Your task to perform on an android device: open app "Pinterest" (install if not already installed) and go to login screen Image 0: 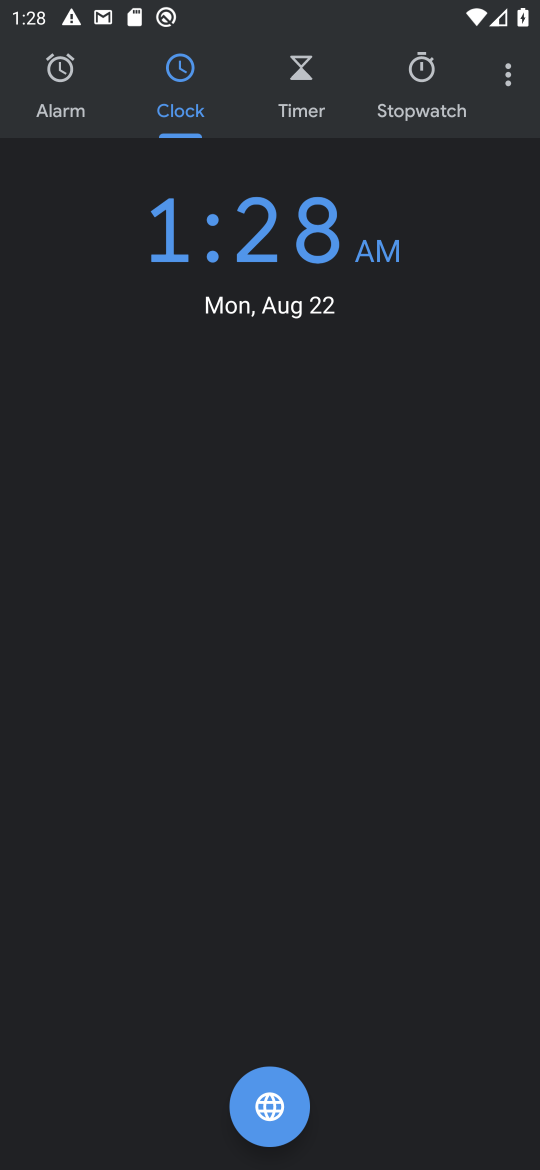
Step 0: press home button
Your task to perform on an android device: open app "Pinterest" (install if not already installed) and go to login screen Image 1: 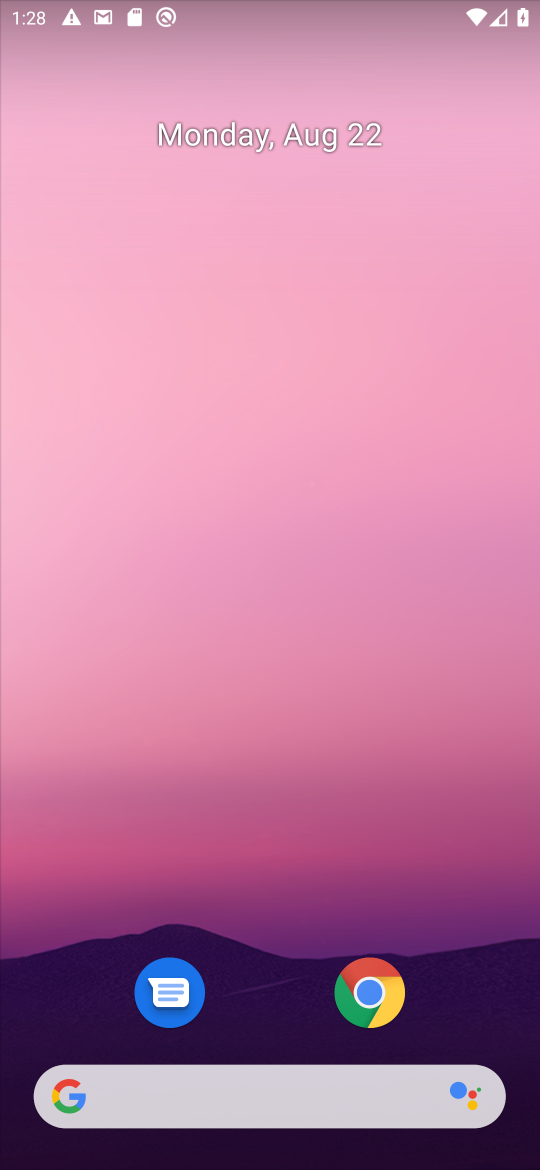
Step 1: drag from (201, 1077) to (231, 215)
Your task to perform on an android device: open app "Pinterest" (install if not already installed) and go to login screen Image 2: 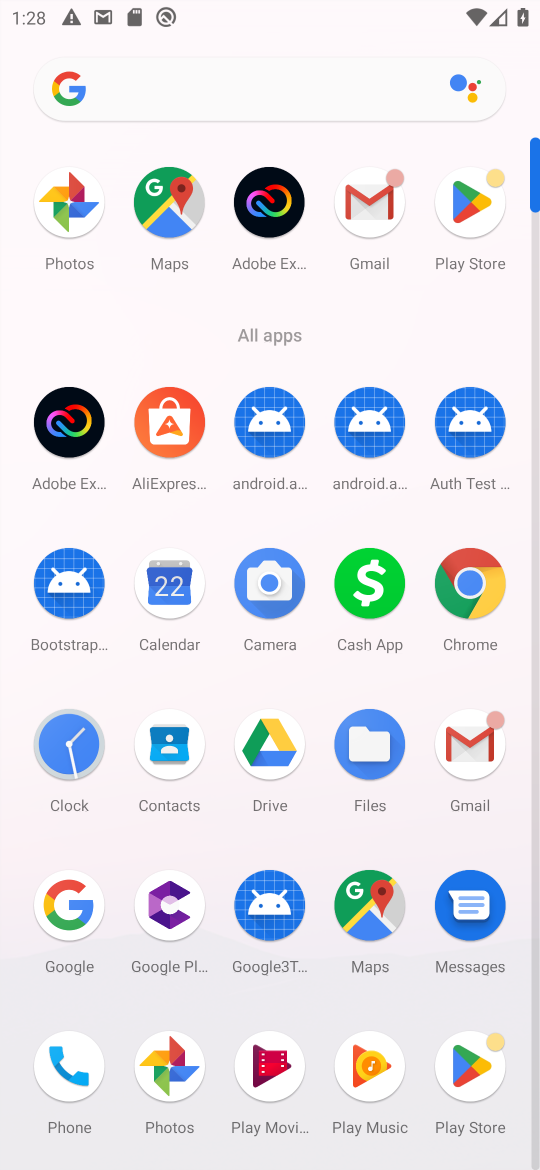
Step 2: click (464, 214)
Your task to perform on an android device: open app "Pinterest" (install if not already installed) and go to login screen Image 3: 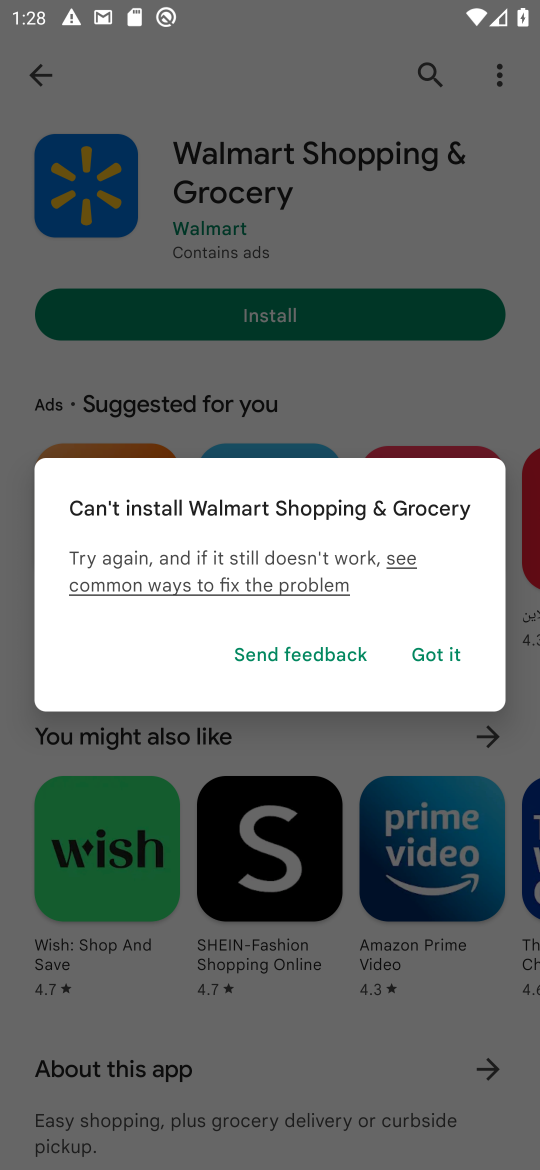
Step 3: click (429, 662)
Your task to perform on an android device: open app "Pinterest" (install if not already installed) and go to login screen Image 4: 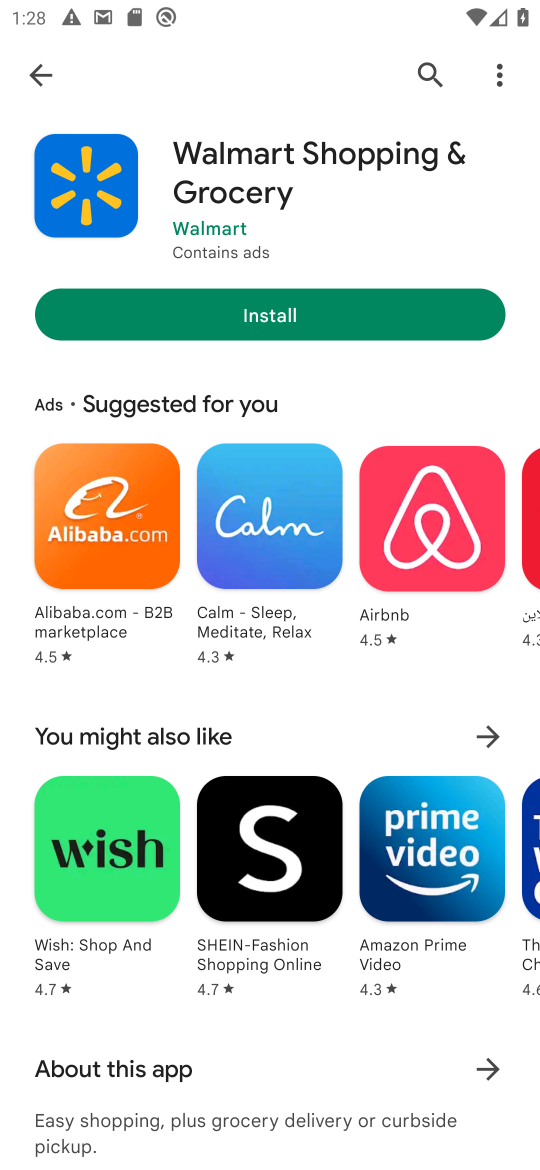
Step 4: click (416, 69)
Your task to perform on an android device: open app "Pinterest" (install if not already installed) and go to login screen Image 5: 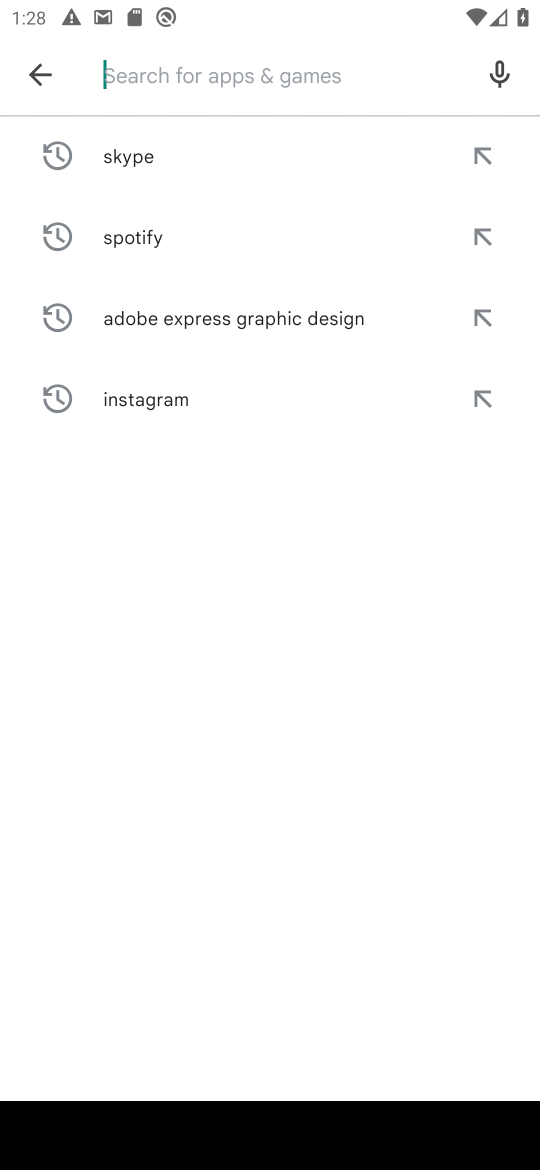
Step 5: type "Pinterest"
Your task to perform on an android device: open app "Pinterest" (install if not already installed) and go to login screen Image 6: 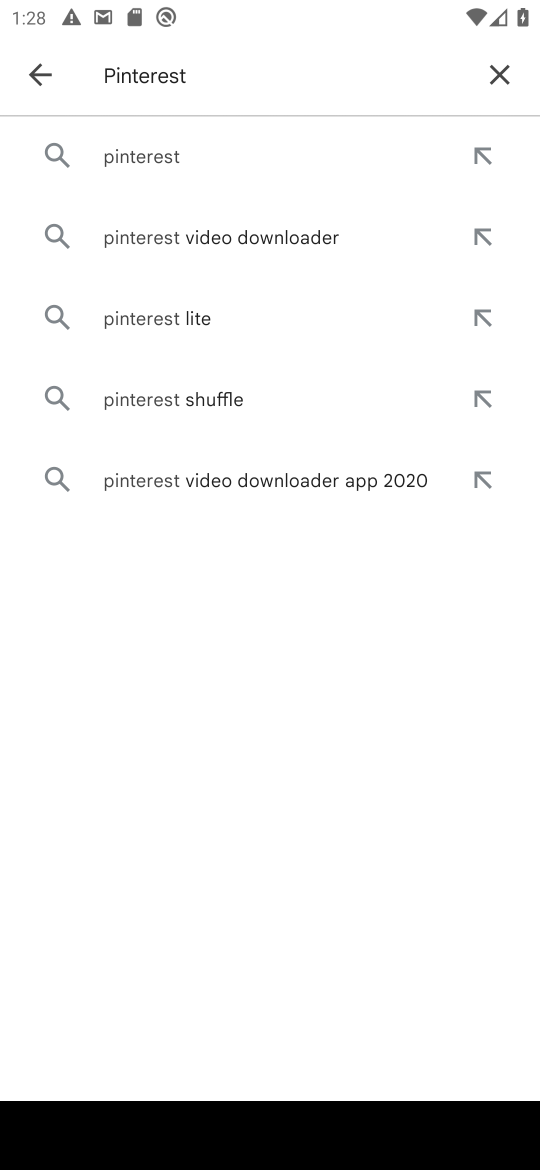
Step 6: click (169, 171)
Your task to perform on an android device: open app "Pinterest" (install if not already installed) and go to login screen Image 7: 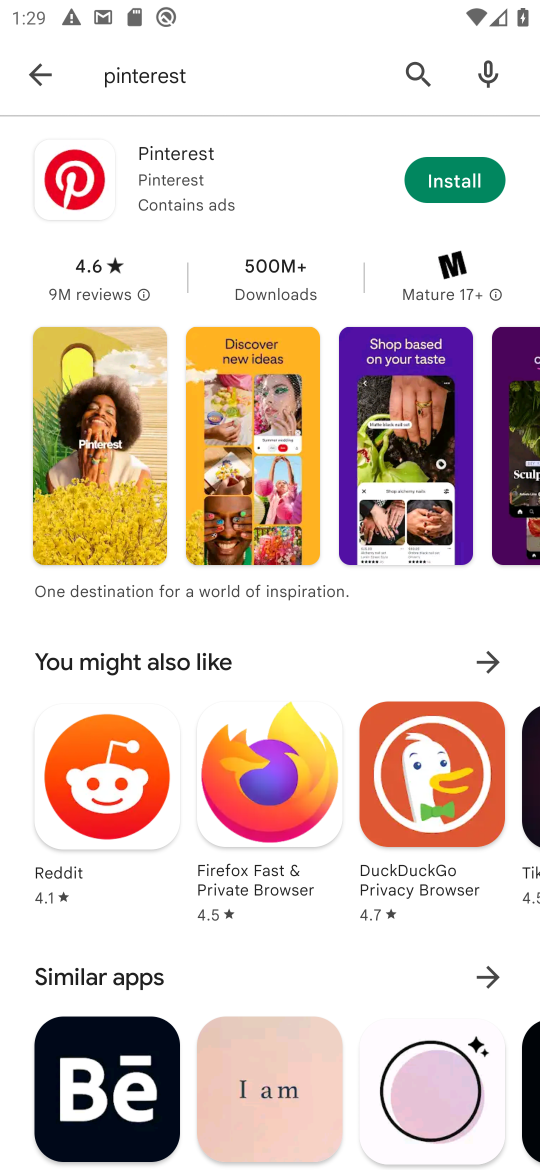
Step 7: click (421, 178)
Your task to perform on an android device: open app "Pinterest" (install if not already installed) and go to login screen Image 8: 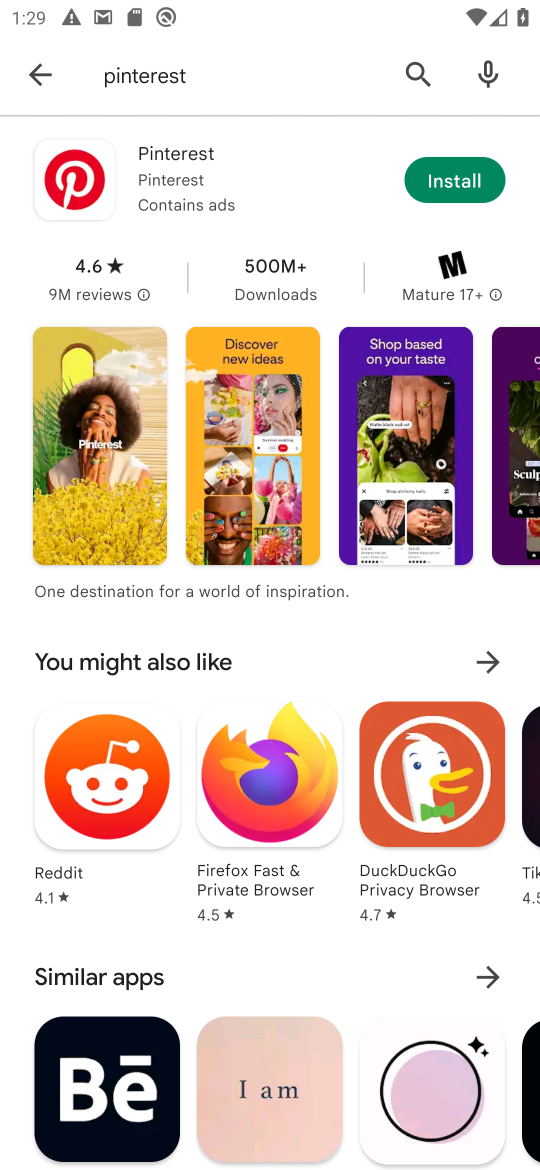
Step 8: task complete